Your task to perform on an android device: Show the shopping cart on newegg. Search for razer thresher on newegg, select the first entry, and add it to the cart. Image 0: 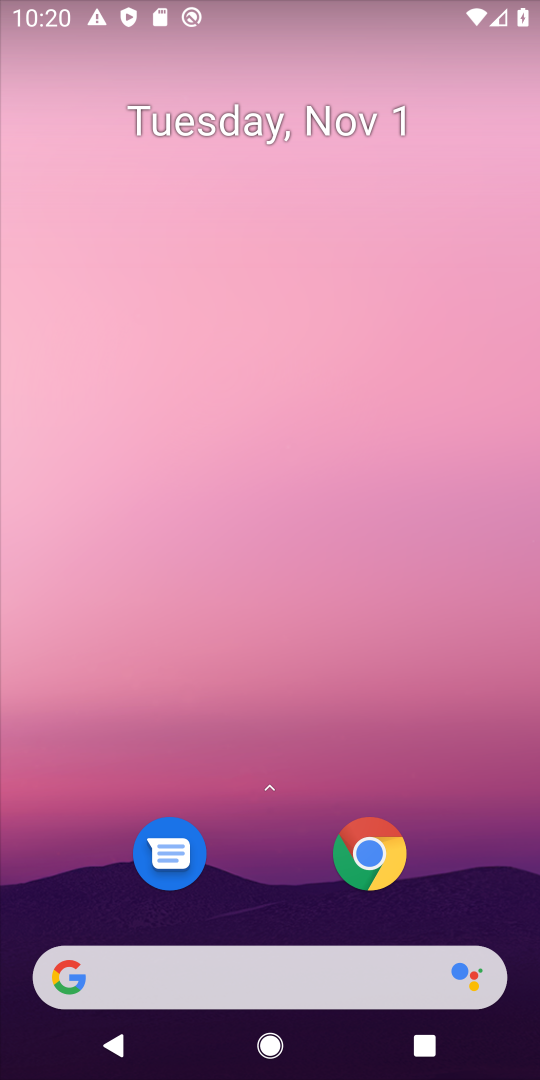
Step 0: click (262, 985)
Your task to perform on an android device: Show the shopping cart on newegg. Search for razer thresher on newegg, select the first entry, and add it to the cart. Image 1: 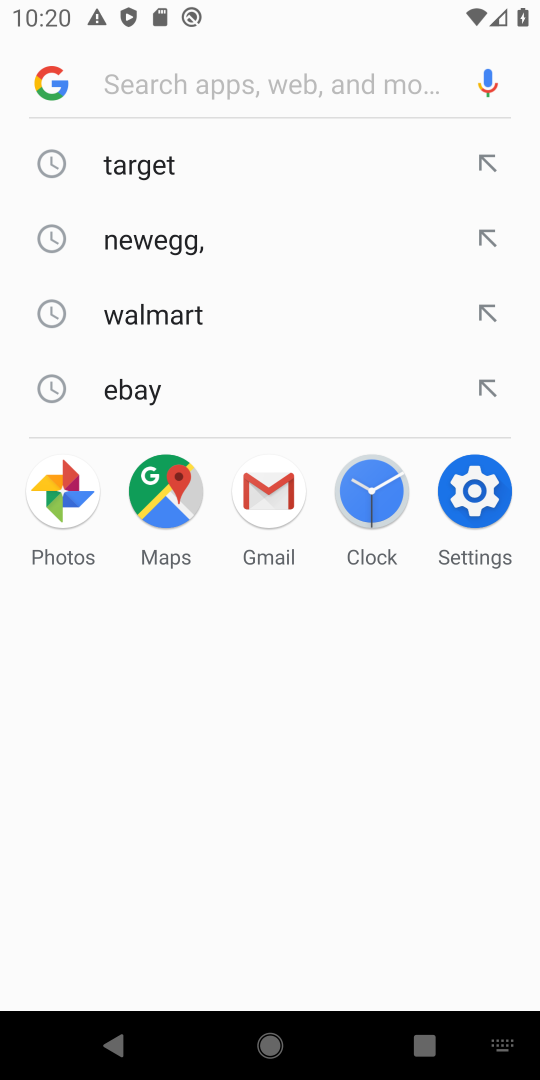
Step 1: click (227, 240)
Your task to perform on an android device: Show the shopping cart on newegg. Search for razer thresher on newegg, select the first entry, and add it to the cart. Image 2: 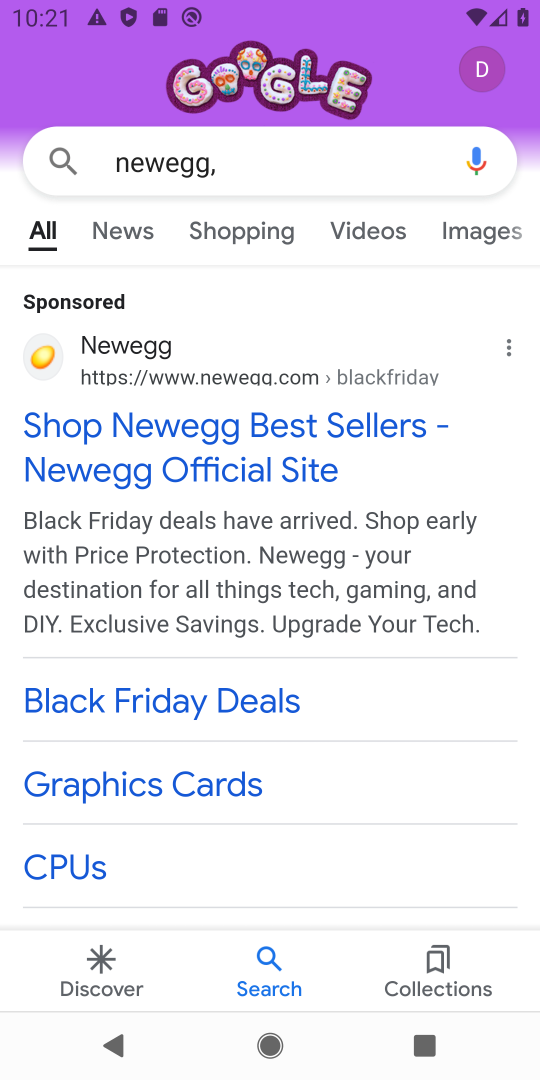
Step 2: click (136, 350)
Your task to perform on an android device: Show the shopping cart on newegg. Search for razer thresher on newegg, select the first entry, and add it to the cart. Image 3: 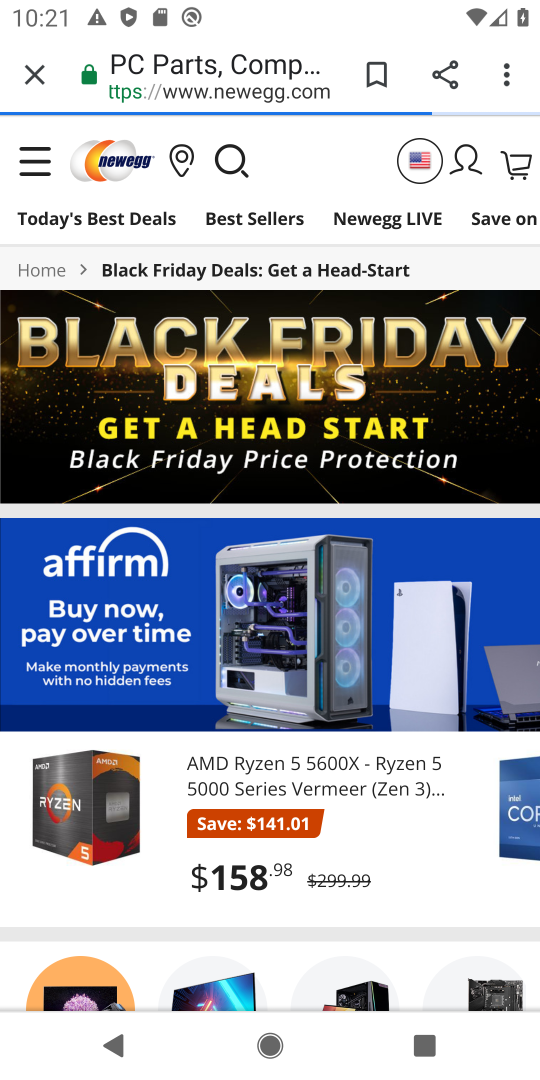
Step 3: click (233, 162)
Your task to perform on an android device: Show the shopping cart on newegg. Search for razer thresher on newegg, select the first entry, and add it to the cart. Image 4: 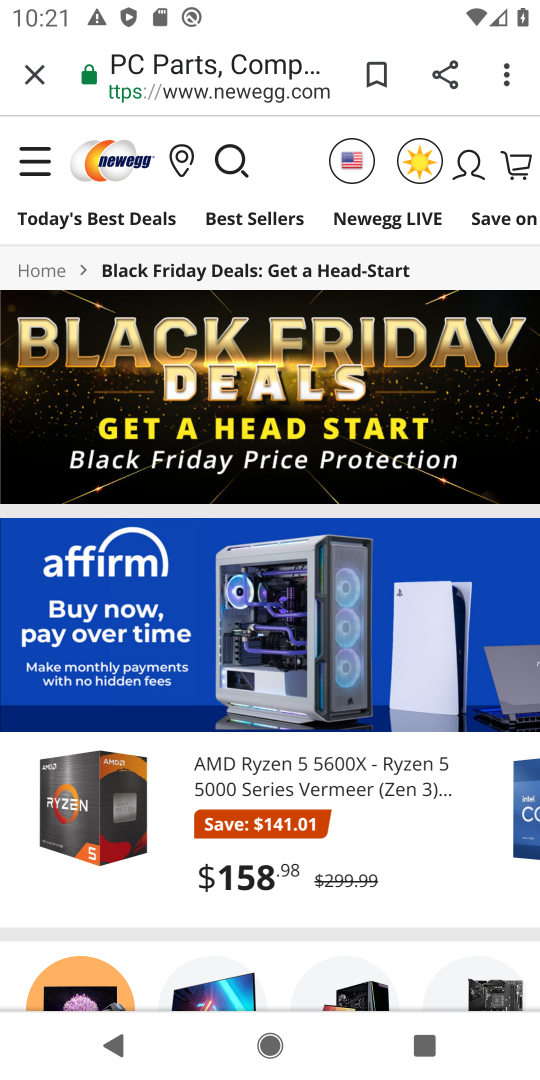
Step 4: click (233, 162)
Your task to perform on an android device: Show the shopping cart on newegg. Search for razer thresher on newegg, select the first entry, and add it to the cart. Image 5: 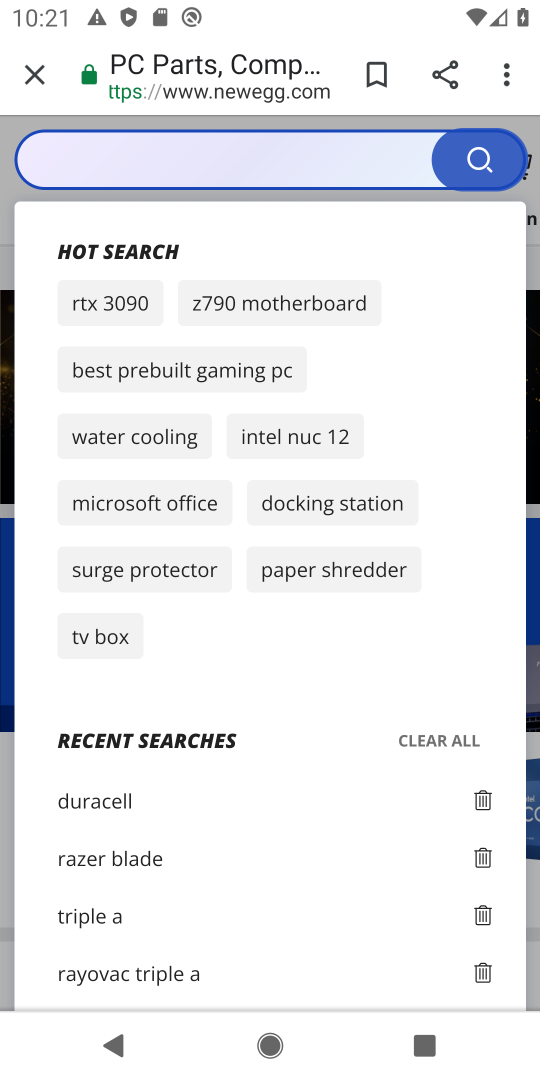
Step 5: click (168, 168)
Your task to perform on an android device: Show the shopping cart on newegg. Search for razer thresher on newegg, select the first entry, and add it to the cart. Image 6: 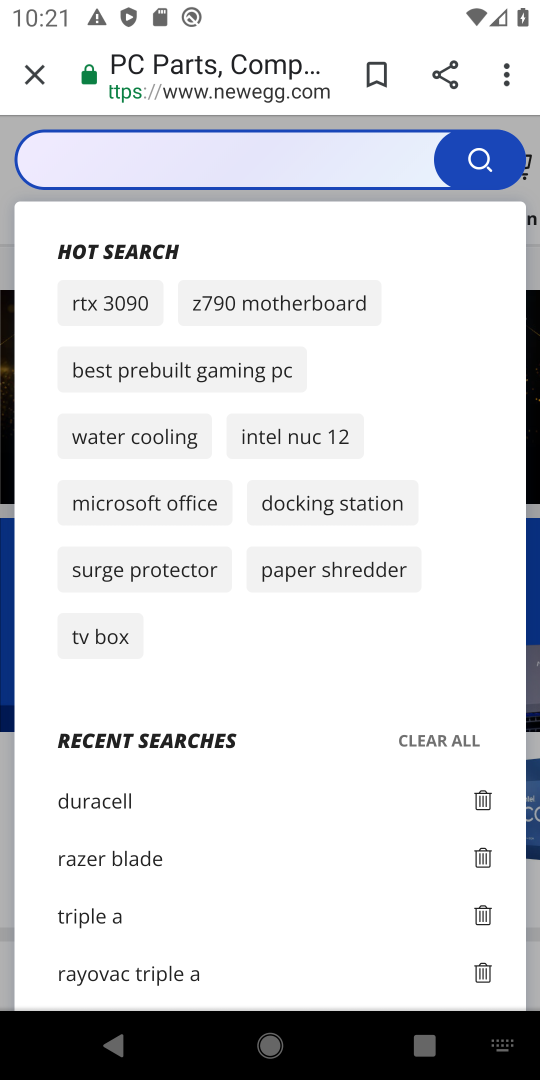
Step 6: type "razer thresher"
Your task to perform on an android device: Show the shopping cart on newegg. Search for razer thresher on newegg, select the first entry, and add it to the cart. Image 7: 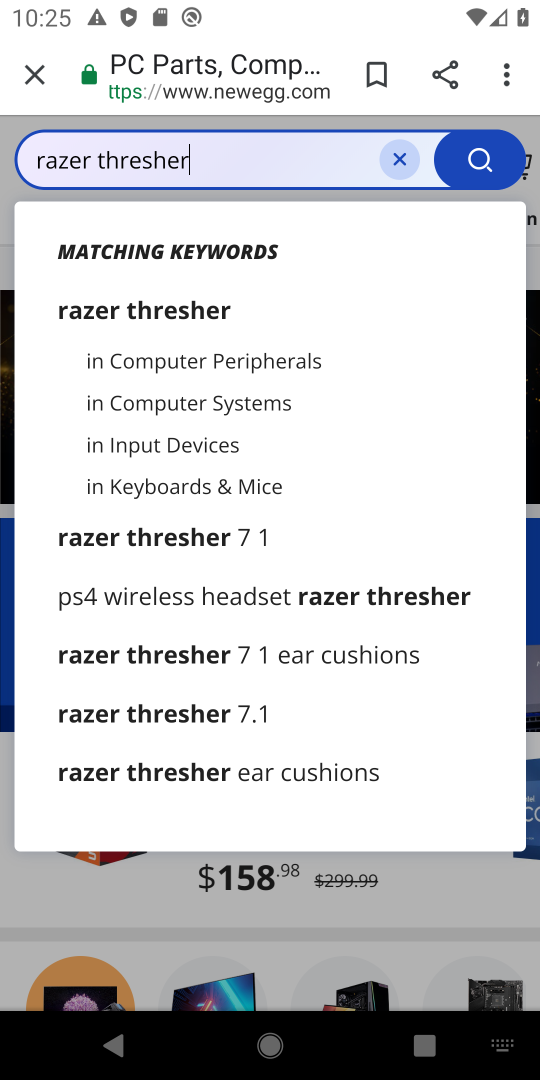
Step 7: task complete